Your task to perform on an android device: delete browsing data in the chrome app Image 0: 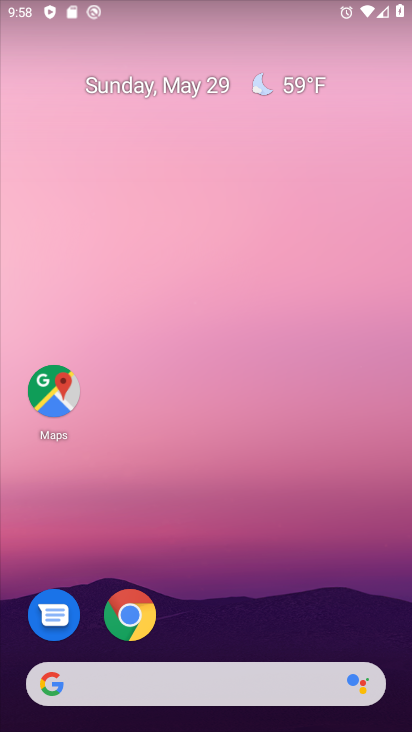
Step 0: click (125, 612)
Your task to perform on an android device: delete browsing data in the chrome app Image 1: 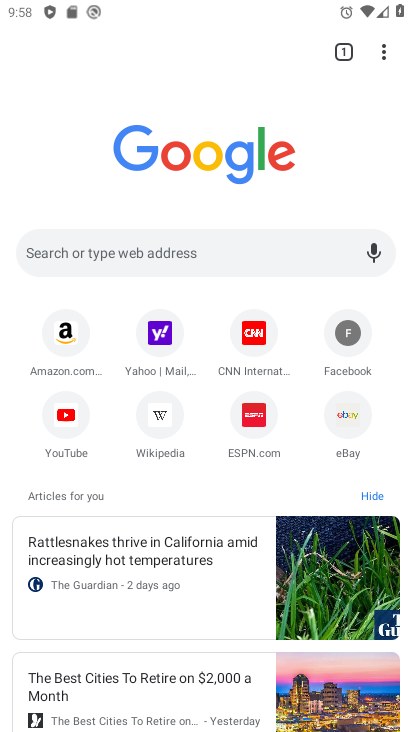
Step 1: click (375, 55)
Your task to perform on an android device: delete browsing data in the chrome app Image 2: 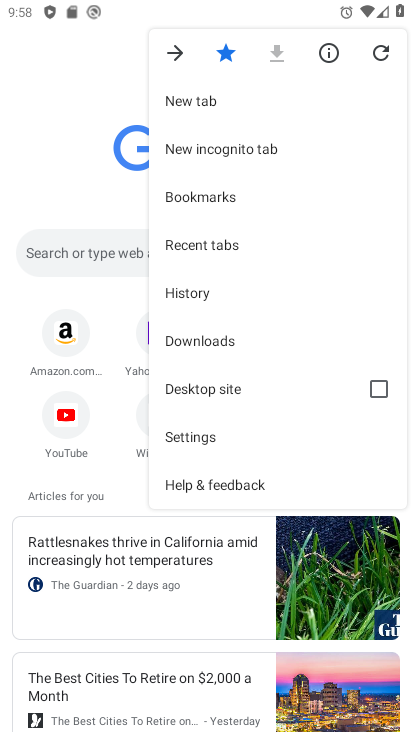
Step 2: click (216, 292)
Your task to perform on an android device: delete browsing data in the chrome app Image 3: 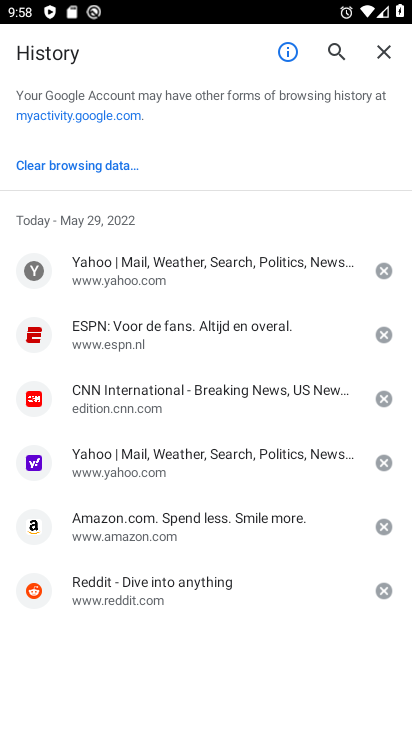
Step 3: click (111, 164)
Your task to perform on an android device: delete browsing data in the chrome app Image 4: 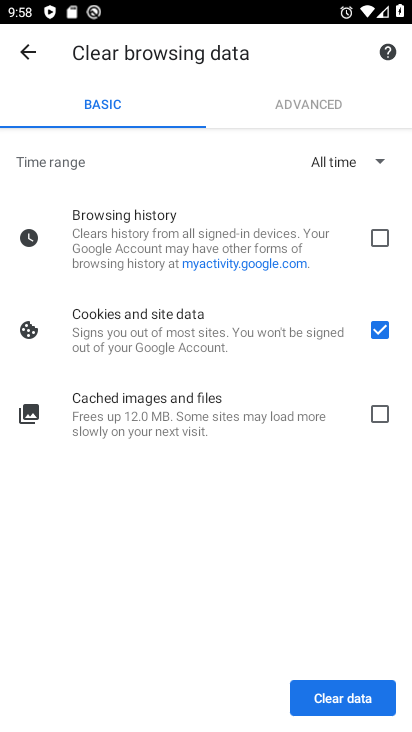
Step 4: click (383, 324)
Your task to perform on an android device: delete browsing data in the chrome app Image 5: 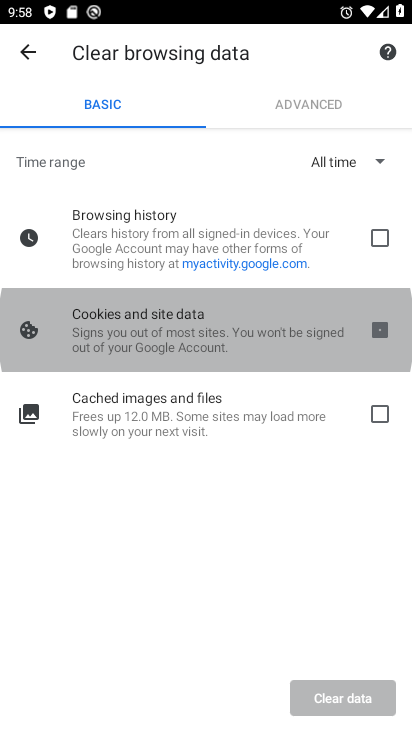
Step 5: click (383, 239)
Your task to perform on an android device: delete browsing data in the chrome app Image 6: 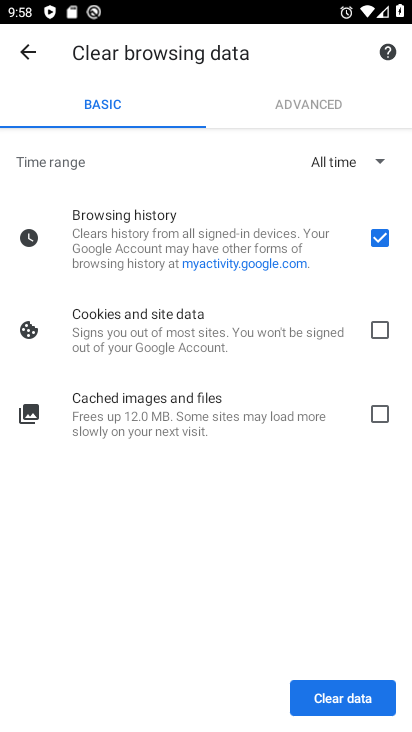
Step 6: click (351, 700)
Your task to perform on an android device: delete browsing data in the chrome app Image 7: 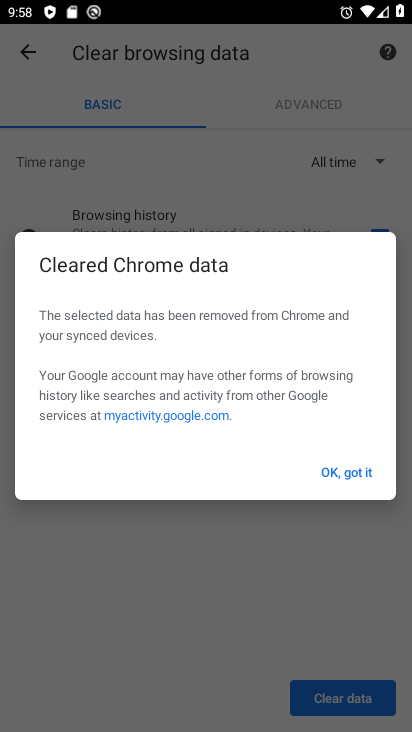
Step 7: click (358, 475)
Your task to perform on an android device: delete browsing data in the chrome app Image 8: 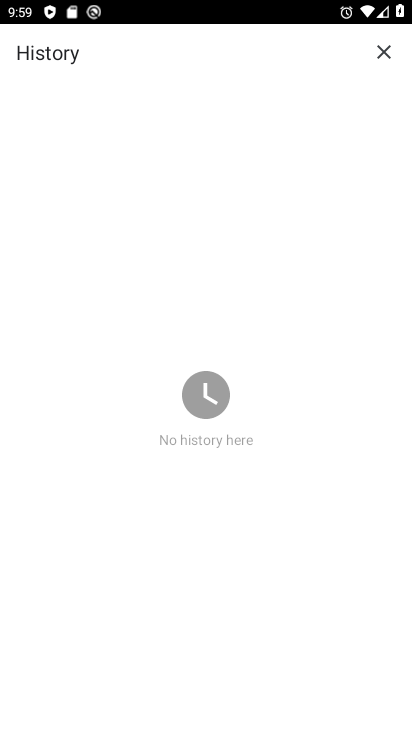
Step 8: task complete